Your task to perform on an android device: turn on the 12-hour format for clock Image 0: 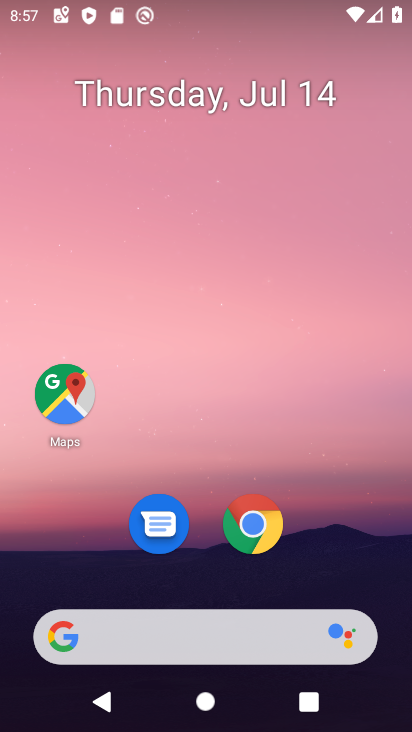
Step 0: drag from (331, 505) to (328, 16)
Your task to perform on an android device: turn on the 12-hour format for clock Image 1: 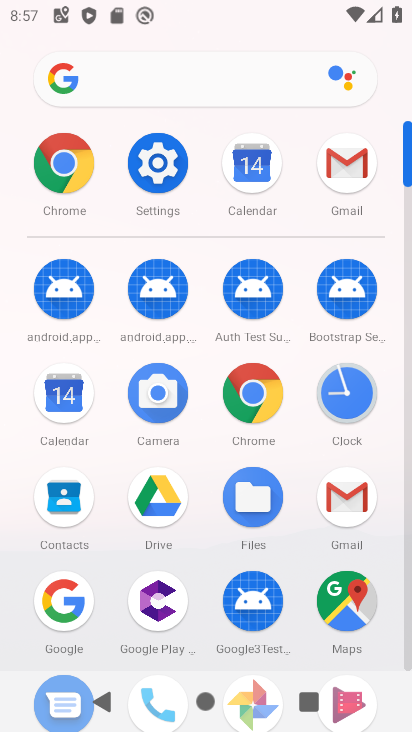
Step 1: click (350, 380)
Your task to perform on an android device: turn on the 12-hour format for clock Image 2: 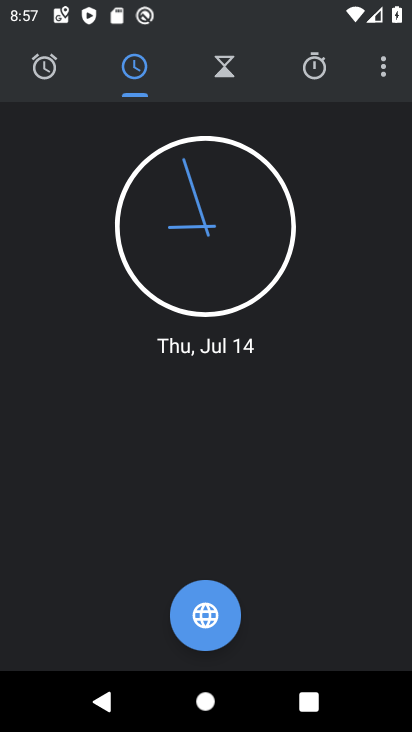
Step 2: click (387, 71)
Your task to perform on an android device: turn on the 12-hour format for clock Image 3: 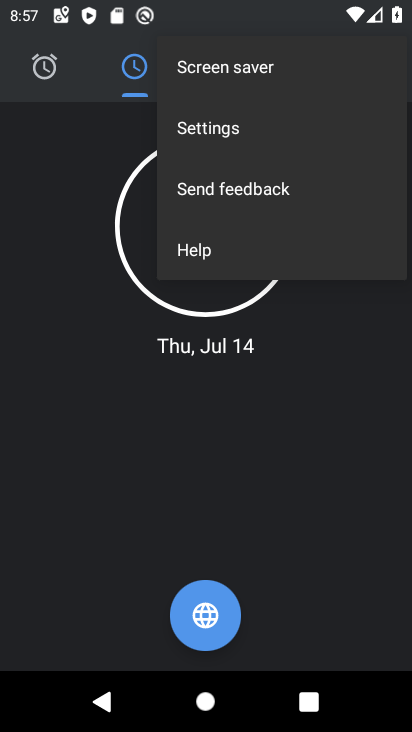
Step 3: click (301, 131)
Your task to perform on an android device: turn on the 12-hour format for clock Image 4: 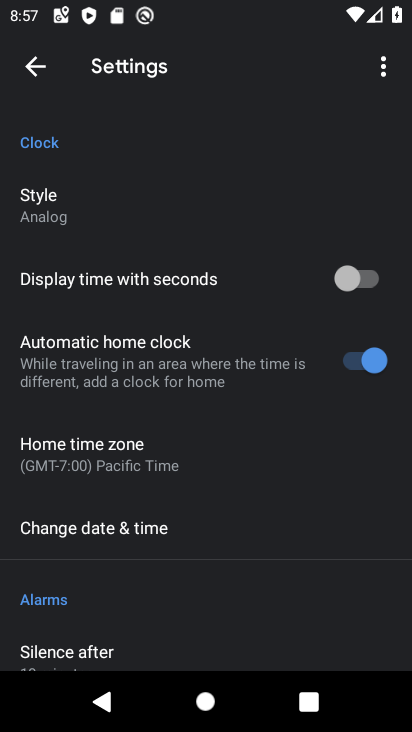
Step 4: click (171, 531)
Your task to perform on an android device: turn on the 12-hour format for clock Image 5: 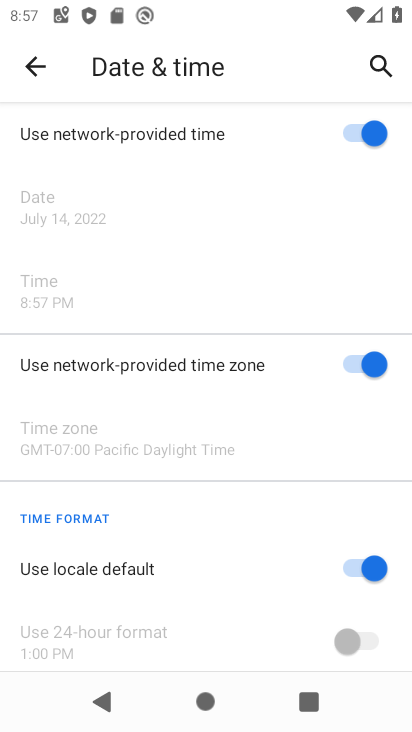
Step 5: task complete